Your task to perform on an android device: Show me the alarms in the clock app Image 0: 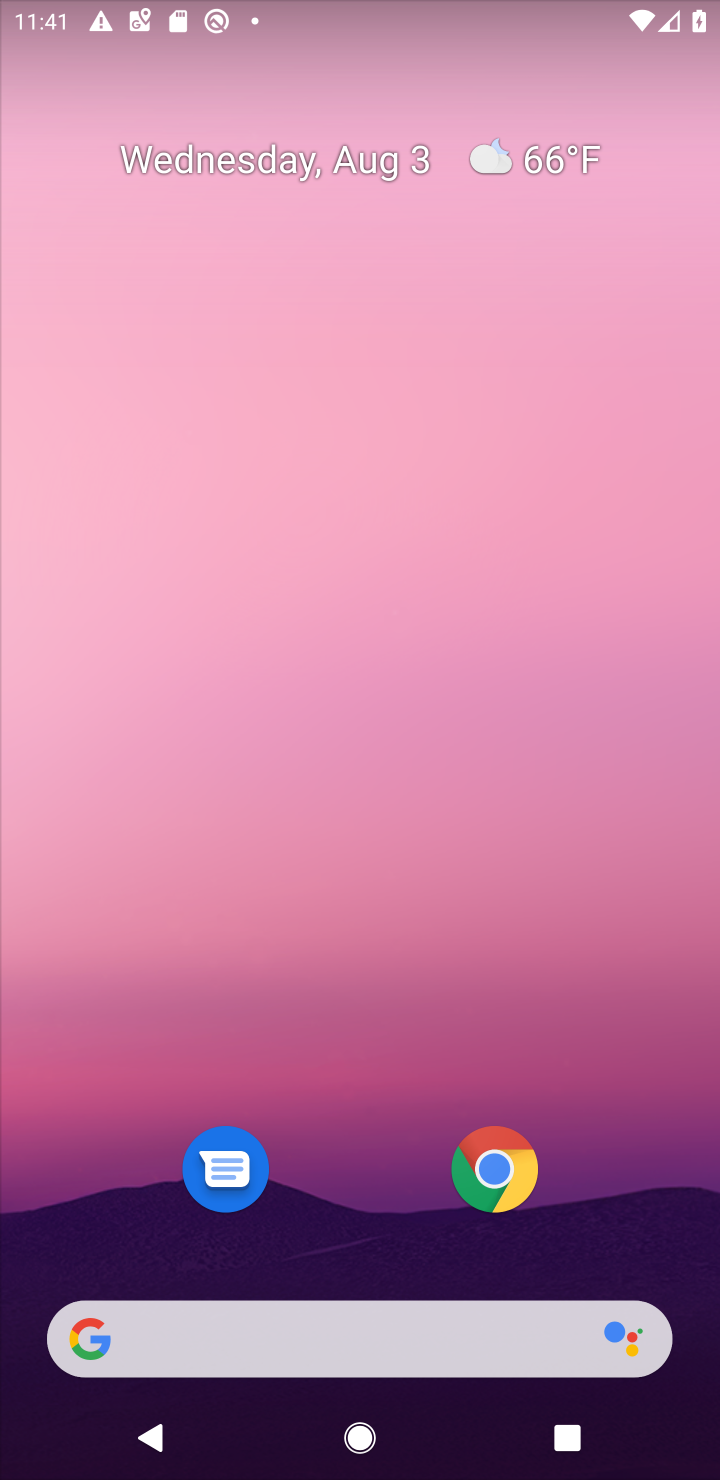
Step 0: drag from (601, 1222) to (574, 31)
Your task to perform on an android device: Show me the alarms in the clock app Image 1: 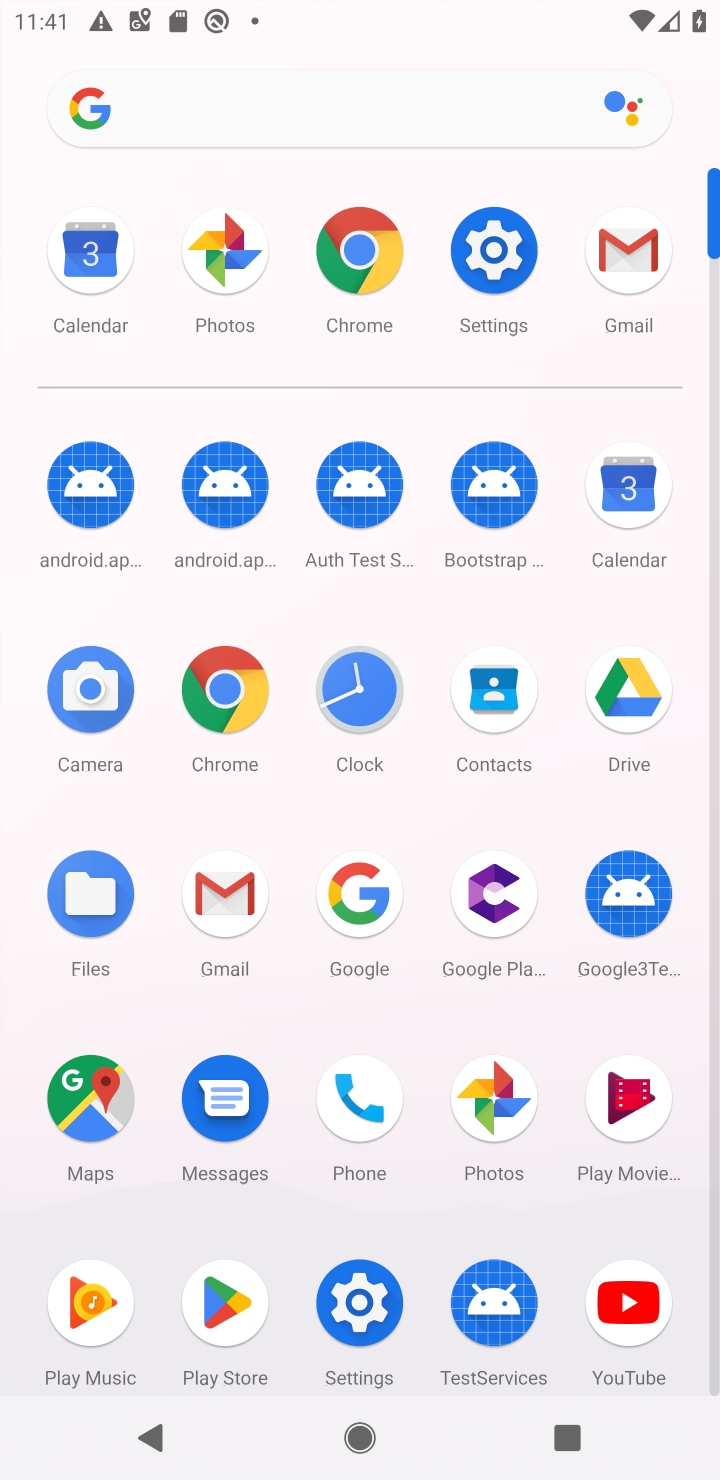
Step 1: click (368, 690)
Your task to perform on an android device: Show me the alarms in the clock app Image 2: 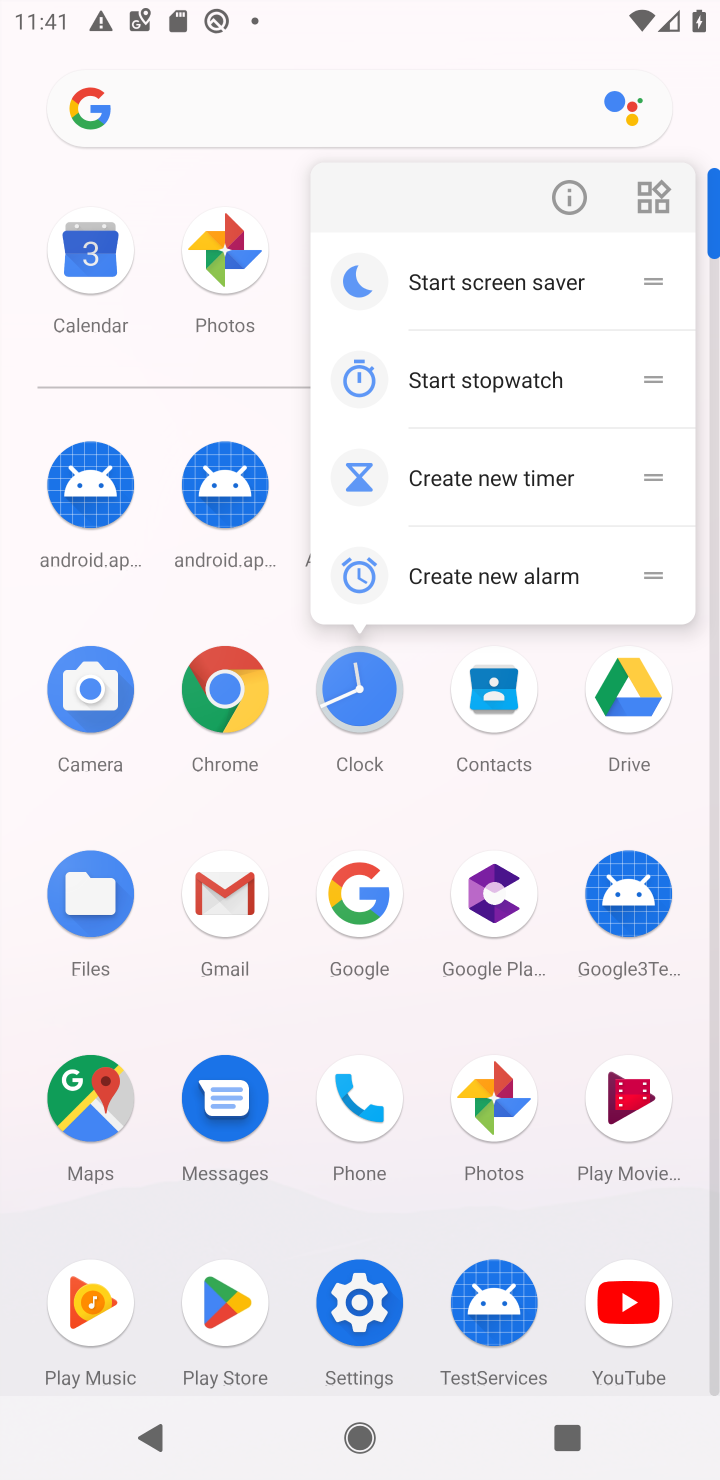
Step 2: click (368, 690)
Your task to perform on an android device: Show me the alarms in the clock app Image 3: 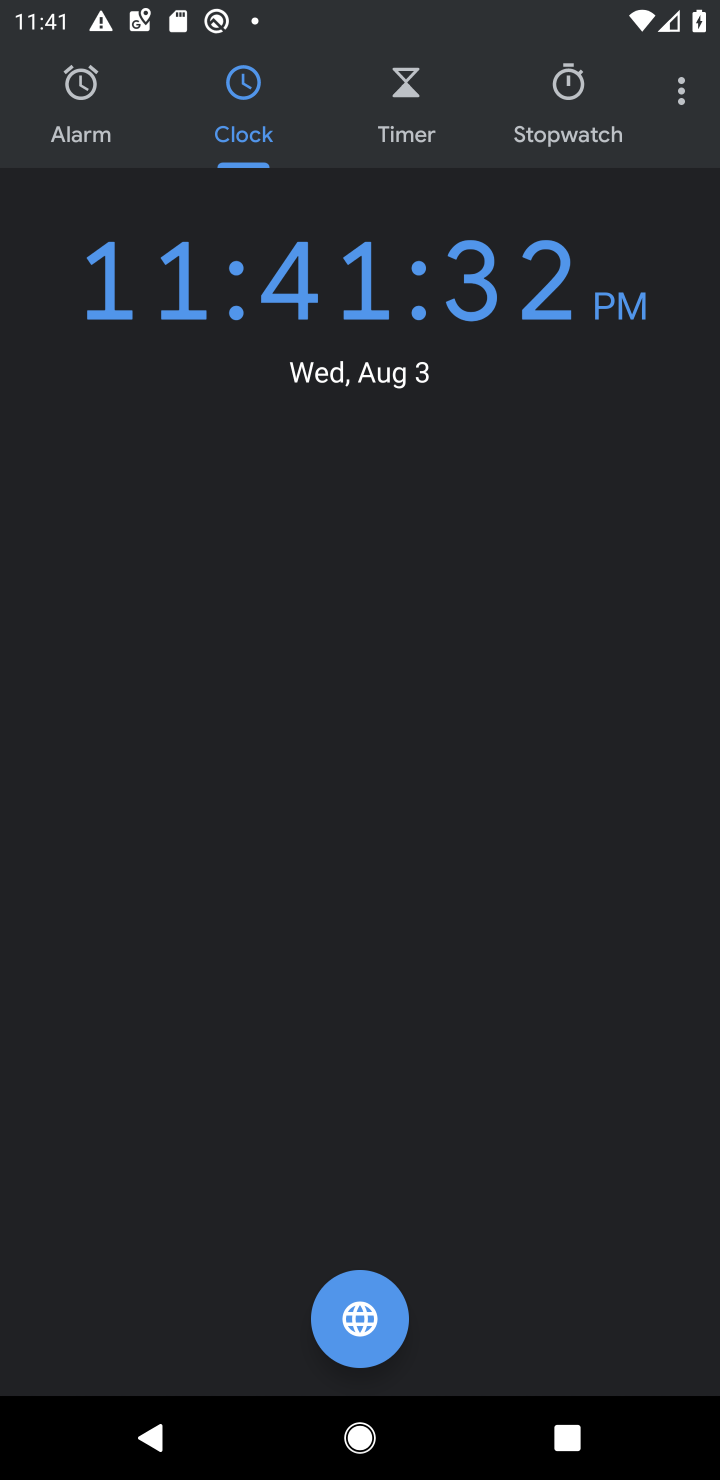
Step 3: click (84, 114)
Your task to perform on an android device: Show me the alarms in the clock app Image 4: 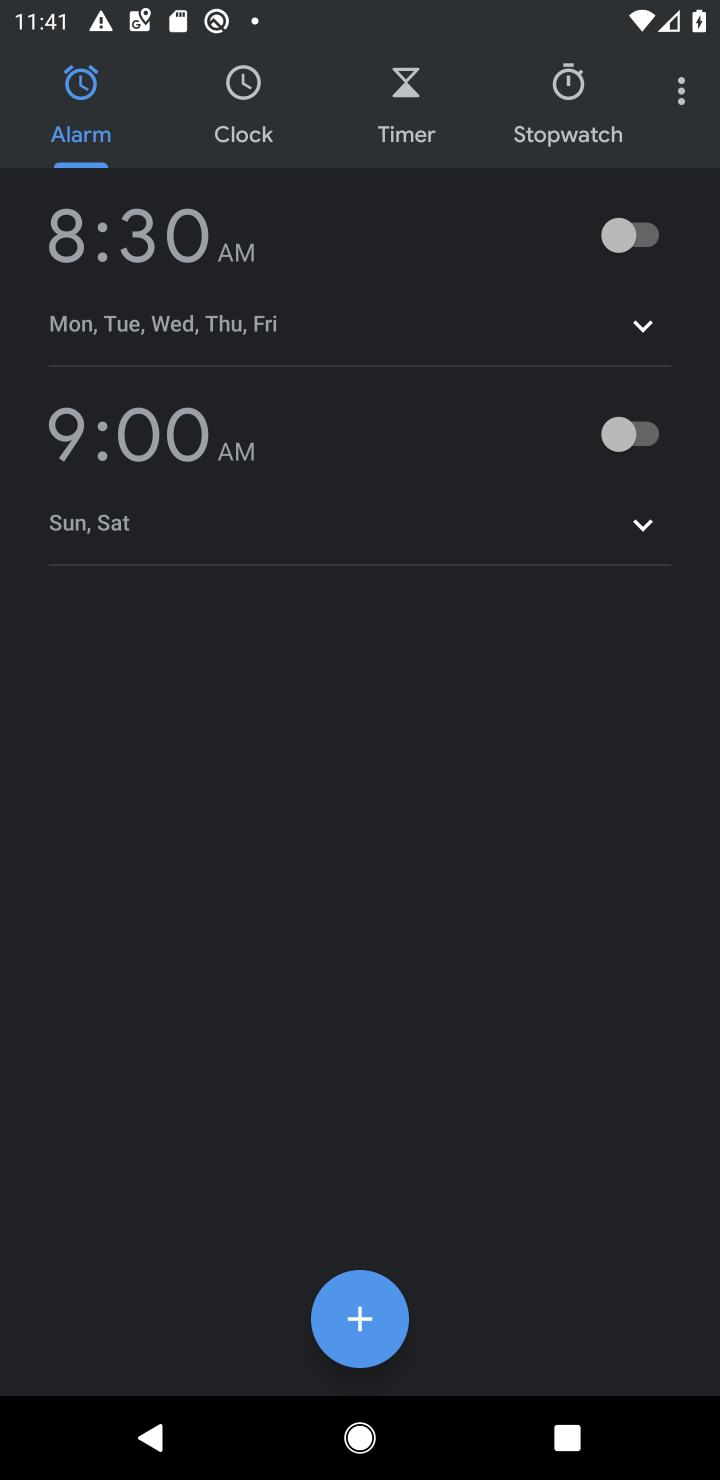
Step 4: task complete